Your task to perform on an android device: check out phone information Image 0: 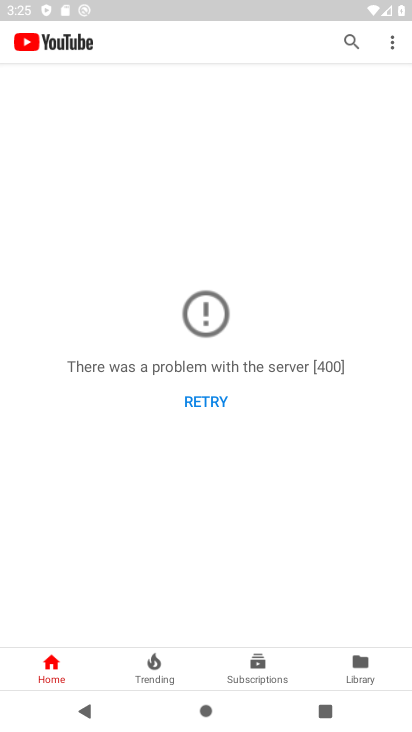
Step 0: press home button
Your task to perform on an android device: check out phone information Image 1: 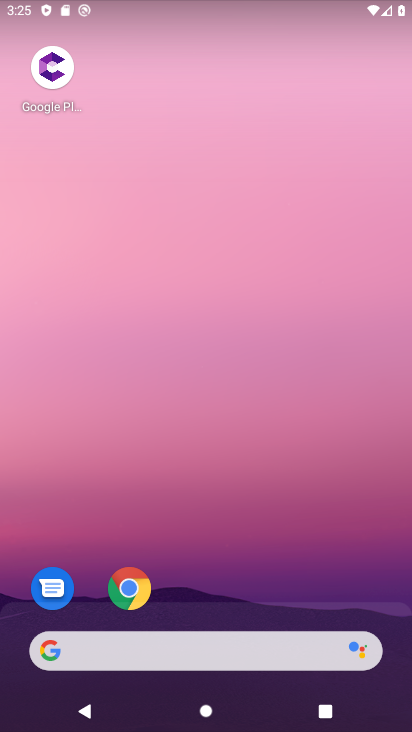
Step 1: drag from (296, 561) to (291, 63)
Your task to perform on an android device: check out phone information Image 2: 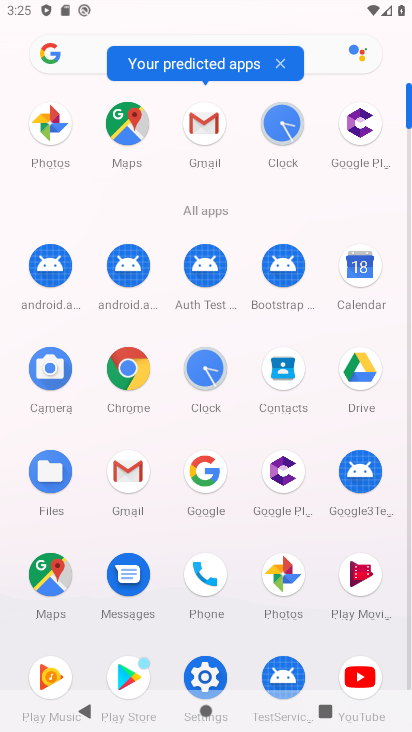
Step 2: click (212, 669)
Your task to perform on an android device: check out phone information Image 3: 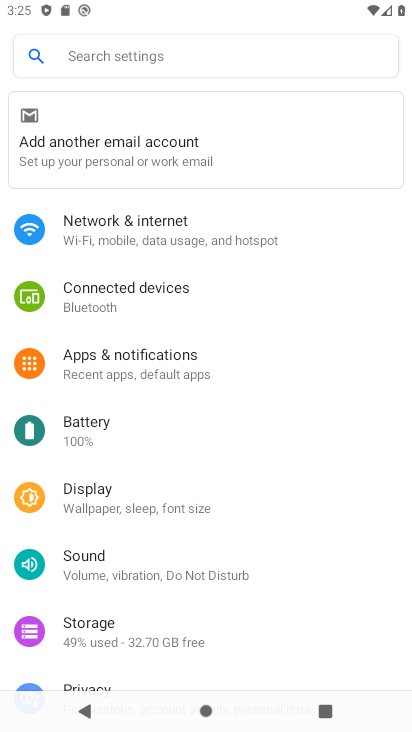
Step 3: drag from (134, 504) to (287, 41)
Your task to perform on an android device: check out phone information Image 4: 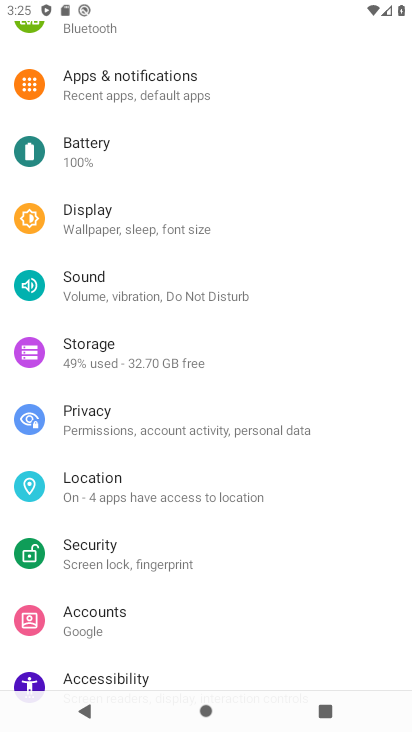
Step 4: drag from (153, 681) to (153, 69)
Your task to perform on an android device: check out phone information Image 5: 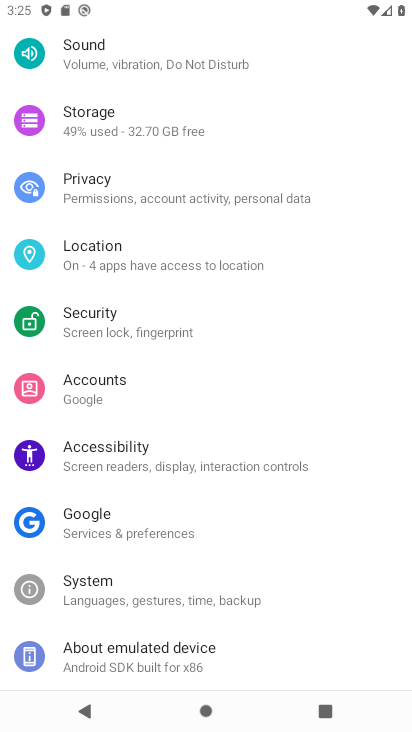
Step 5: click (186, 656)
Your task to perform on an android device: check out phone information Image 6: 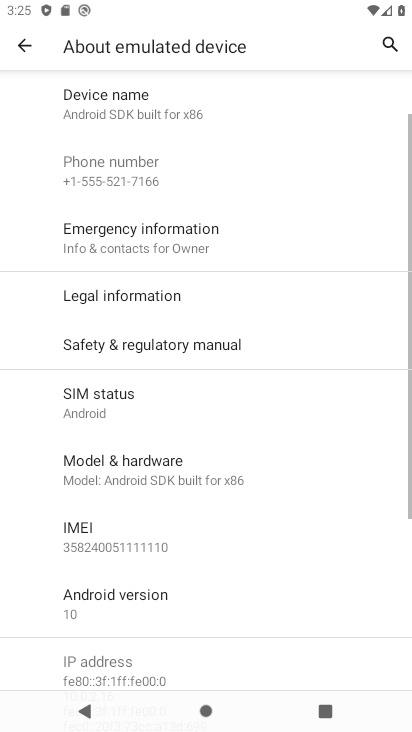
Step 6: task complete